Your task to perform on an android device: Toggle the flashlight Image 0: 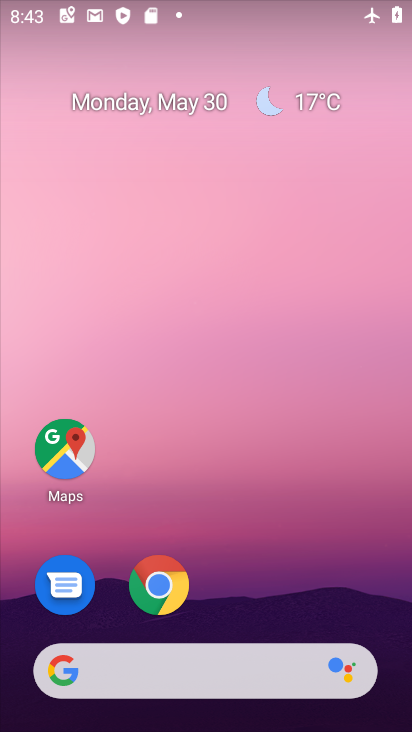
Step 0: drag from (191, 604) to (205, 136)
Your task to perform on an android device: Toggle the flashlight Image 1: 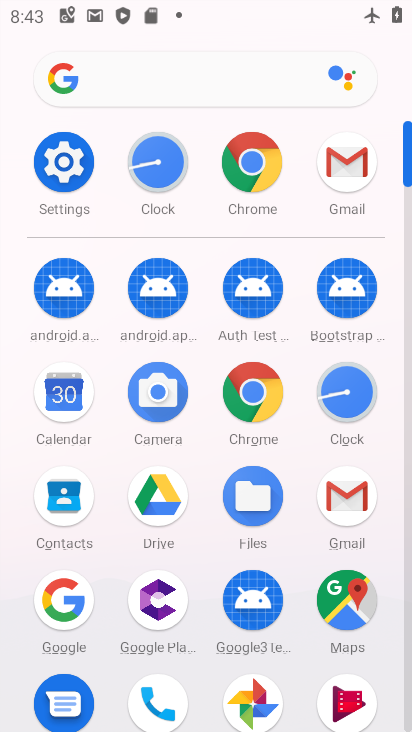
Step 1: click (56, 147)
Your task to perform on an android device: Toggle the flashlight Image 2: 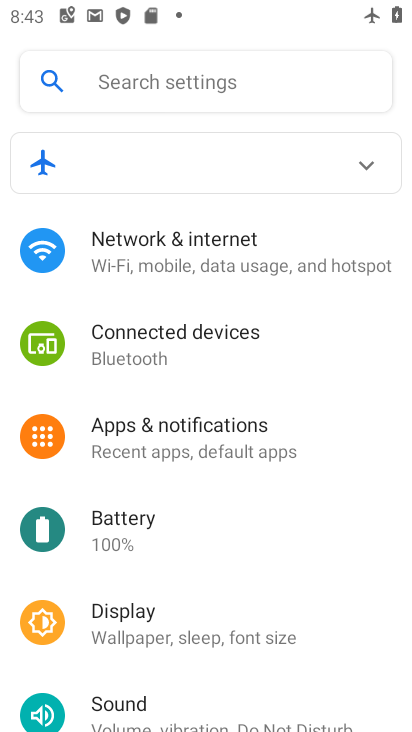
Step 2: click (138, 97)
Your task to perform on an android device: Toggle the flashlight Image 3: 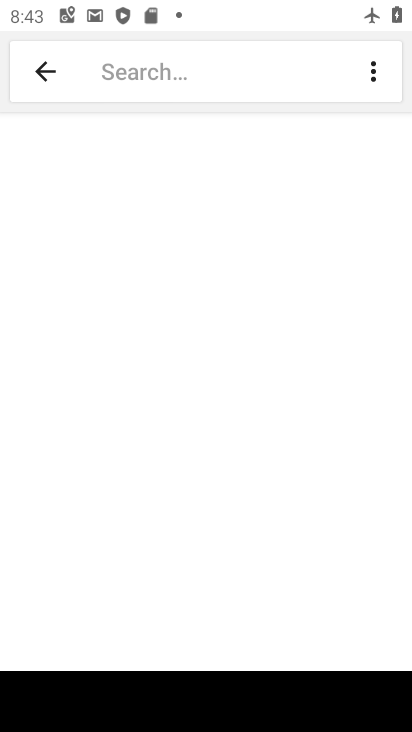
Step 3: type "flashlight"
Your task to perform on an android device: Toggle the flashlight Image 4: 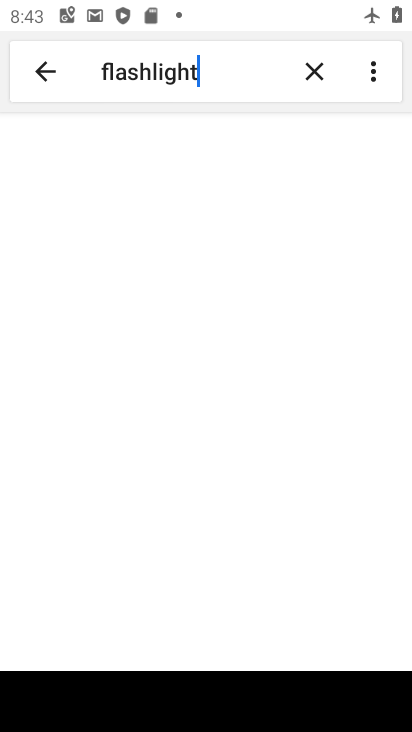
Step 4: type ""
Your task to perform on an android device: Toggle the flashlight Image 5: 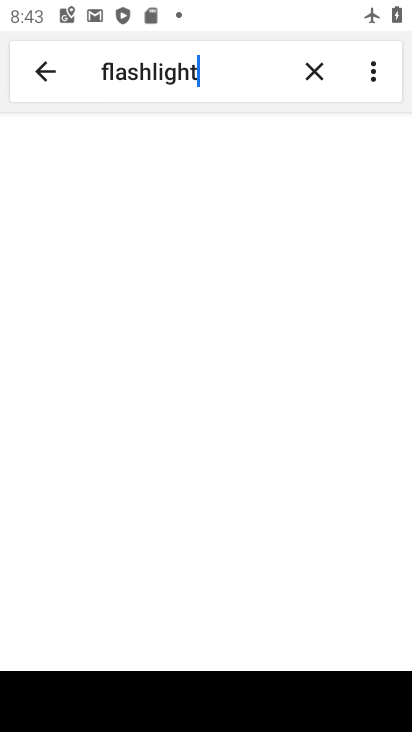
Step 5: click (144, 156)
Your task to perform on an android device: Toggle the flashlight Image 6: 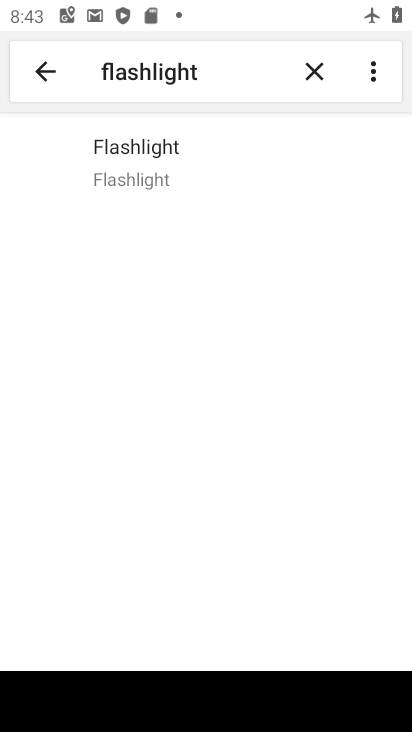
Step 6: click (218, 149)
Your task to perform on an android device: Toggle the flashlight Image 7: 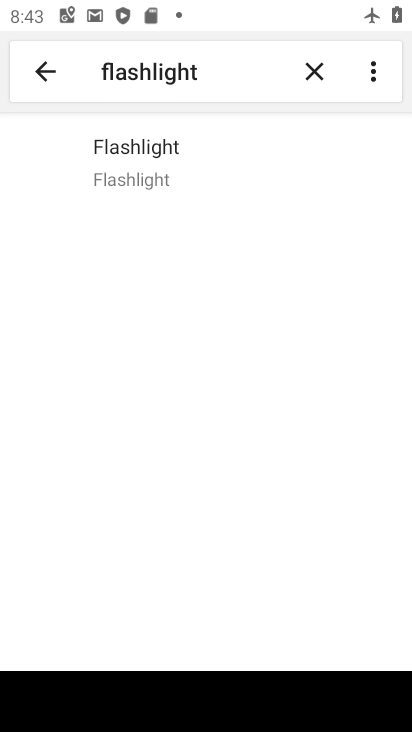
Step 7: task complete